Your task to perform on an android device: Open internet settings Image 0: 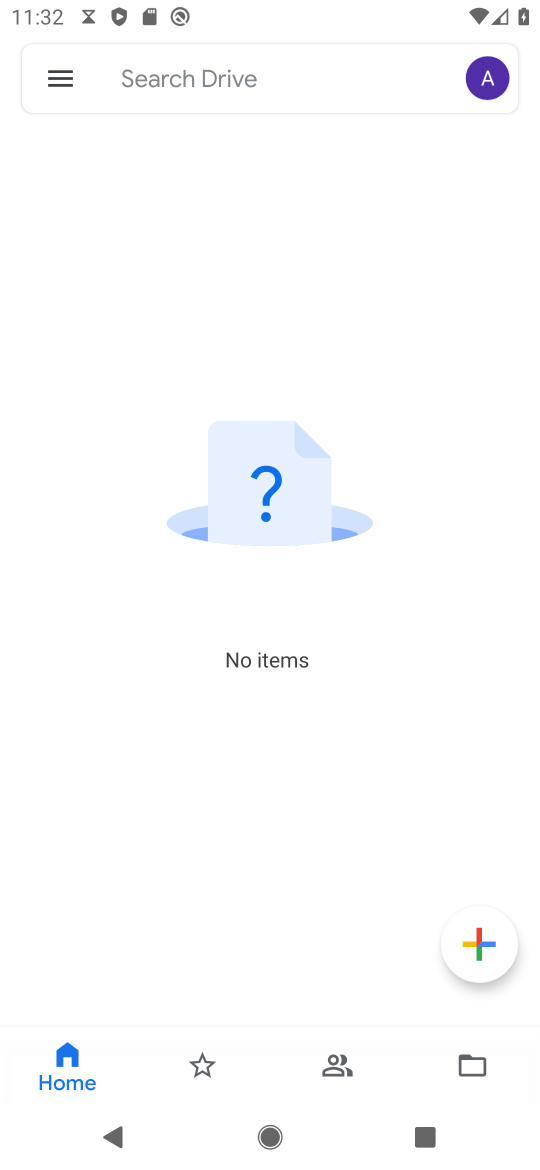
Step 0: press home button
Your task to perform on an android device: Open internet settings Image 1: 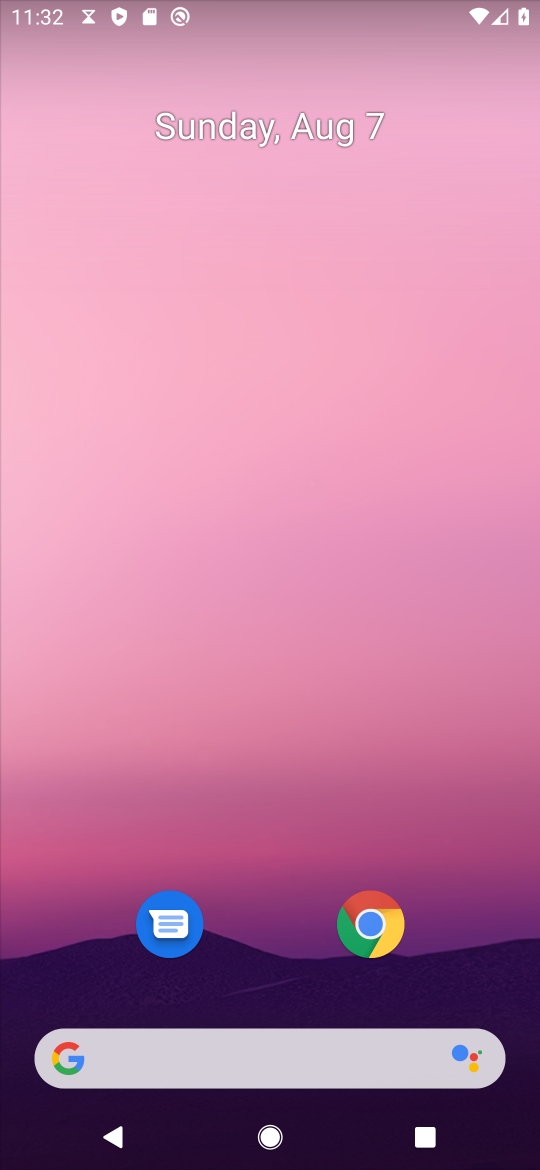
Step 1: drag from (324, 1054) to (242, 462)
Your task to perform on an android device: Open internet settings Image 2: 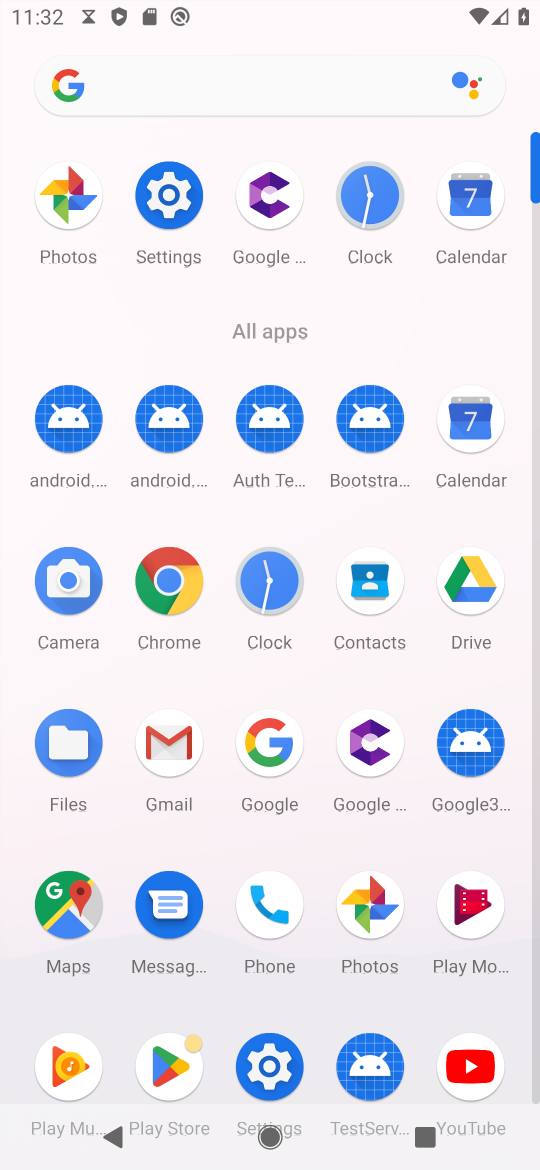
Step 2: click (157, 198)
Your task to perform on an android device: Open internet settings Image 3: 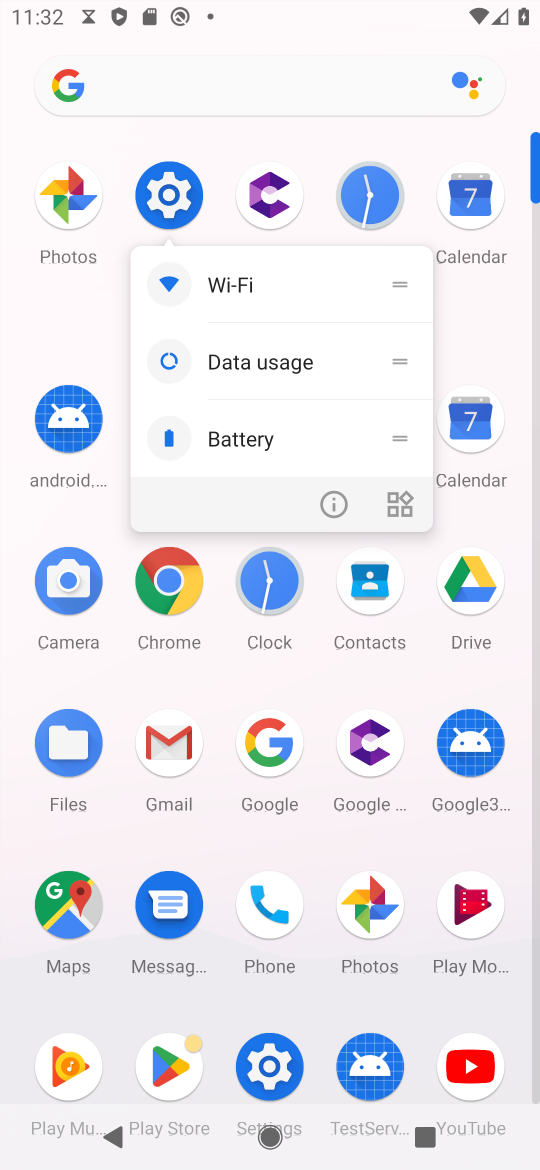
Step 3: click (157, 207)
Your task to perform on an android device: Open internet settings Image 4: 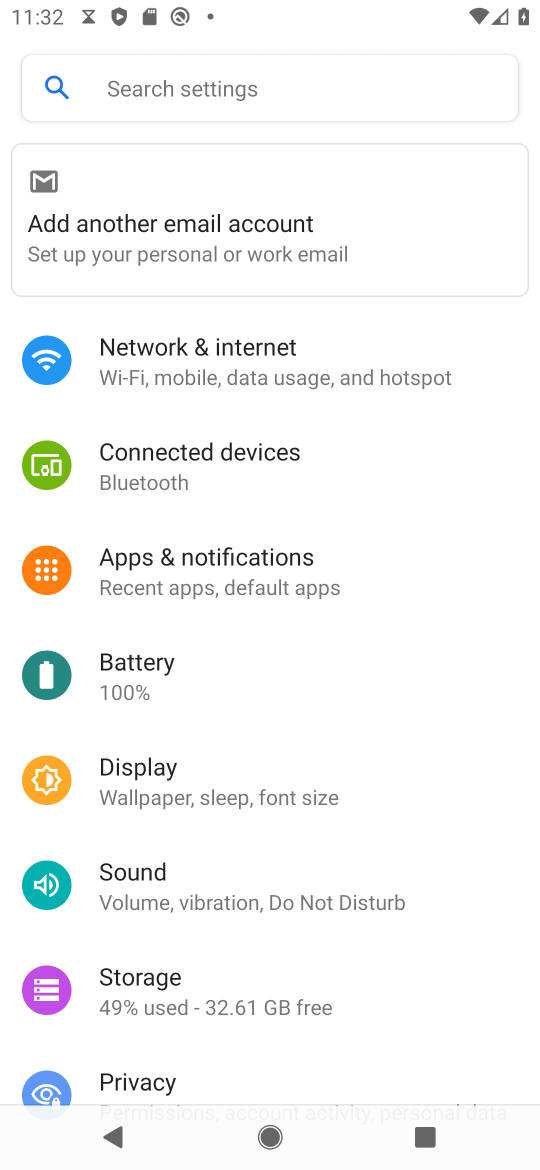
Step 4: click (159, 324)
Your task to perform on an android device: Open internet settings Image 5: 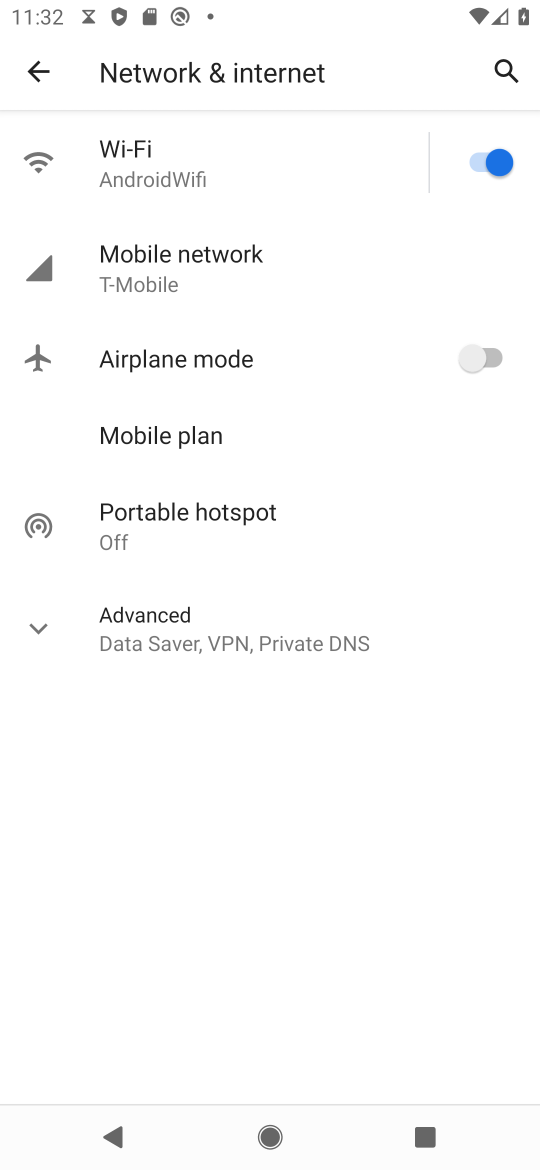
Step 5: click (193, 640)
Your task to perform on an android device: Open internet settings Image 6: 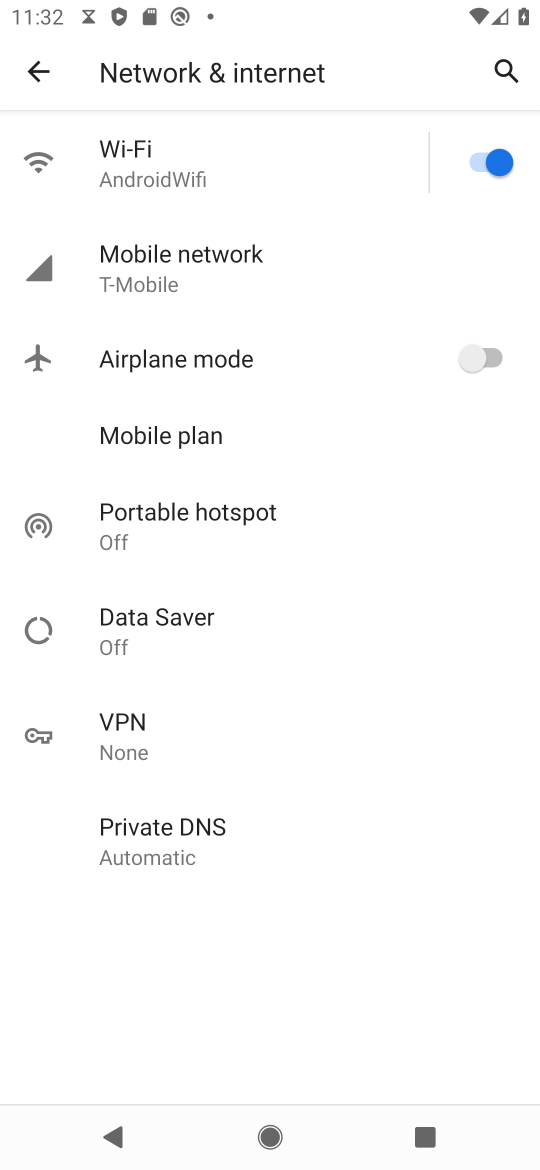
Step 6: task complete